Your task to perform on an android device: turn off location history Image 0: 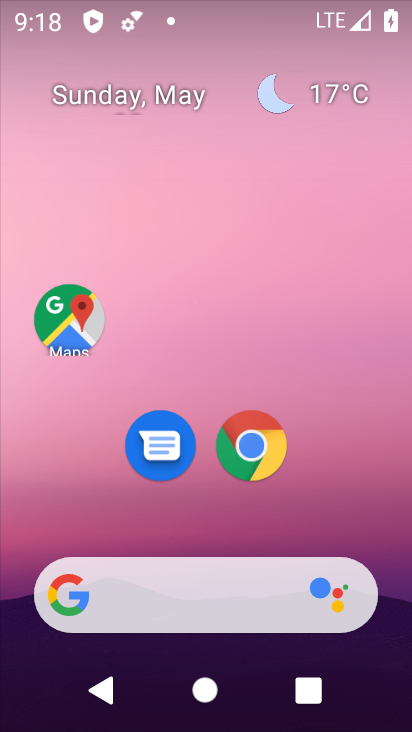
Step 0: drag from (187, 531) to (298, 0)
Your task to perform on an android device: turn off location history Image 1: 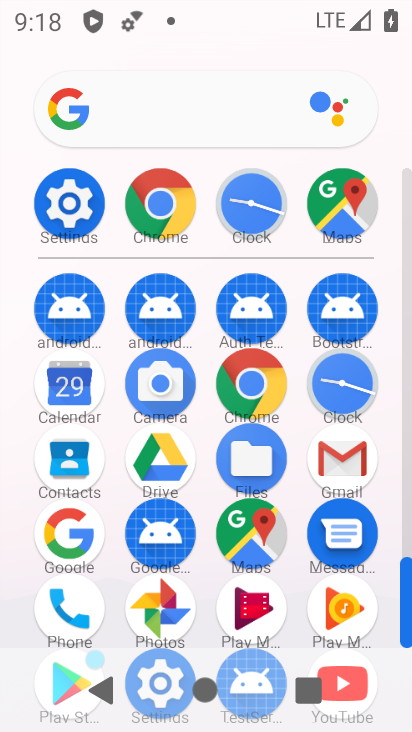
Step 1: click (71, 201)
Your task to perform on an android device: turn off location history Image 2: 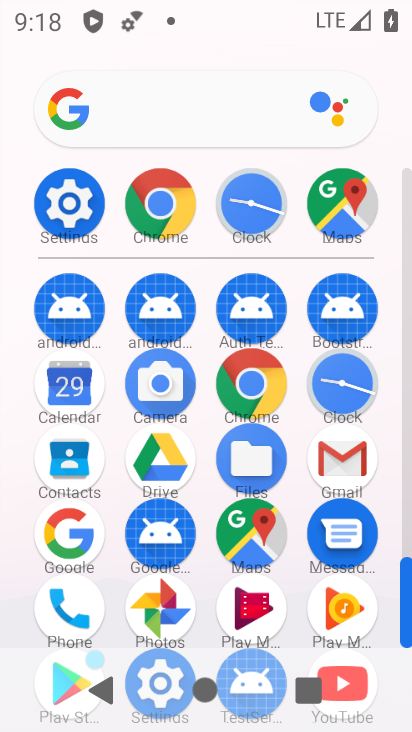
Step 2: click (71, 201)
Your task to perform on an android device: turn off location history Image 3: 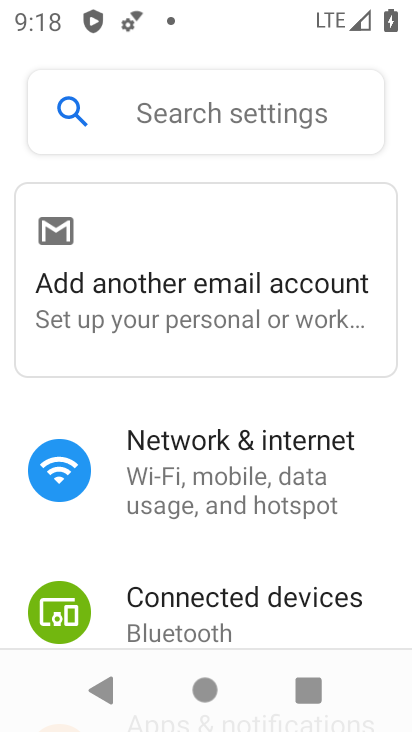
Step 3: drag from (245, 582) to (350, 22)
Your task to perform on an android device: turn off location history Image 4: 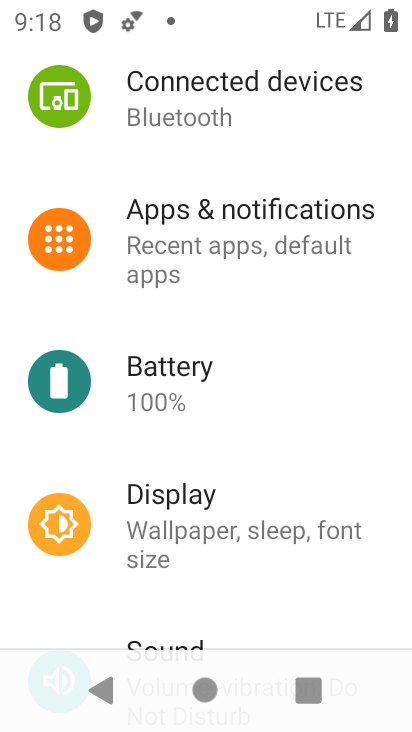
Step 4: drag from (244, 582) to (281, 111)
Your task to perform on an android device: turn off location history Image 5: 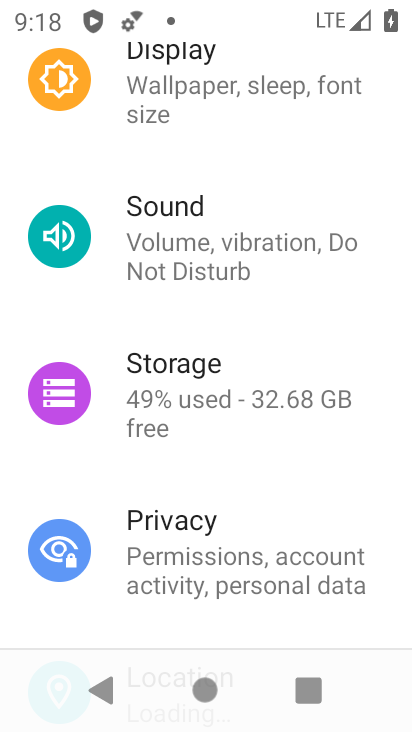
Step 5: drag from (203, 489) to (267, 84)
Your task to perform on an android device: turn off location history Image 6: 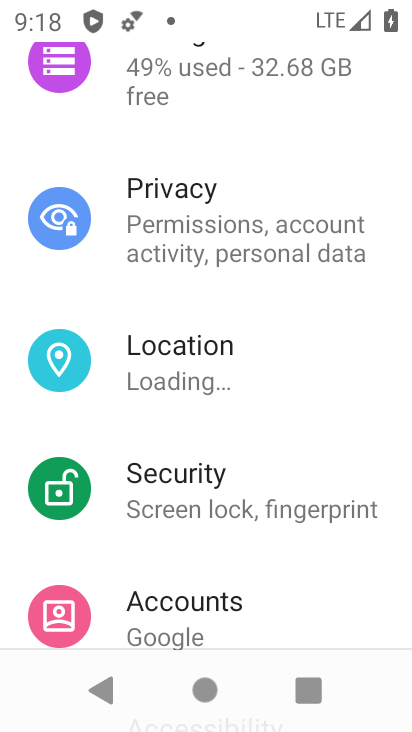
Step 6: click (227, 389)
Your task to perform on an android device: turn off location history Image 7: 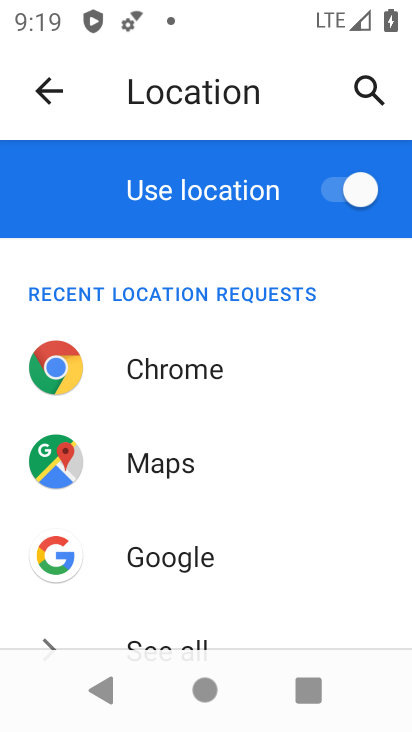
Step 7: drag from (240, 544) to (281, 78)
Your task to perform on an android device: turn off location history Image 8: 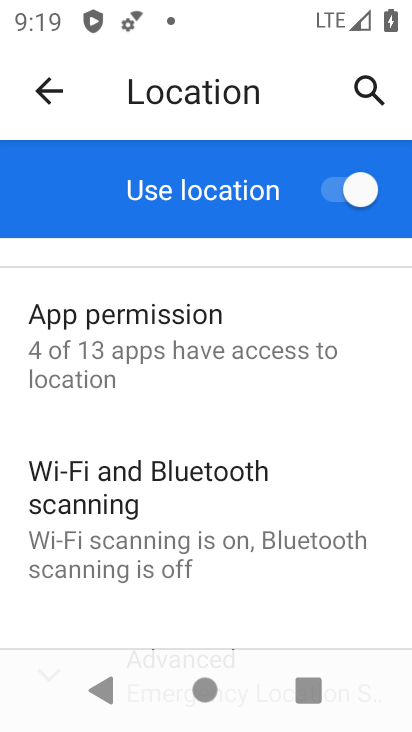
Step 8: drag from (196, 554) to (276, 195)
Your task to perform on an android device: turn off location history Image 9: 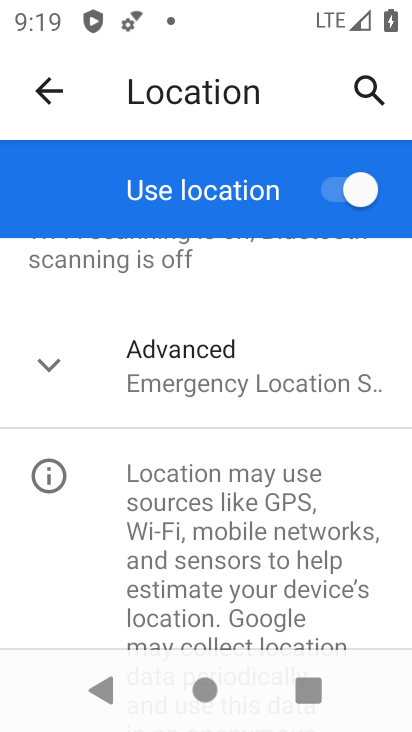
Step 9: click (186, 381)
Your task to perform on an android device: turn off location history Image 10: 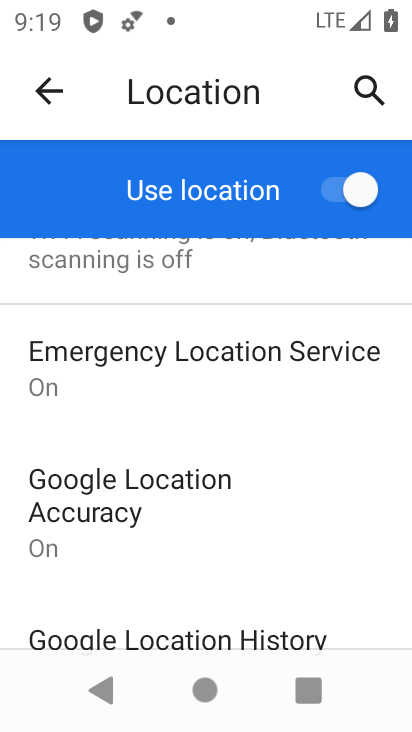
Step 10: drag from (235, 511) to (268, 226)
Your task to perform on an android device: turn off location history Image 11: 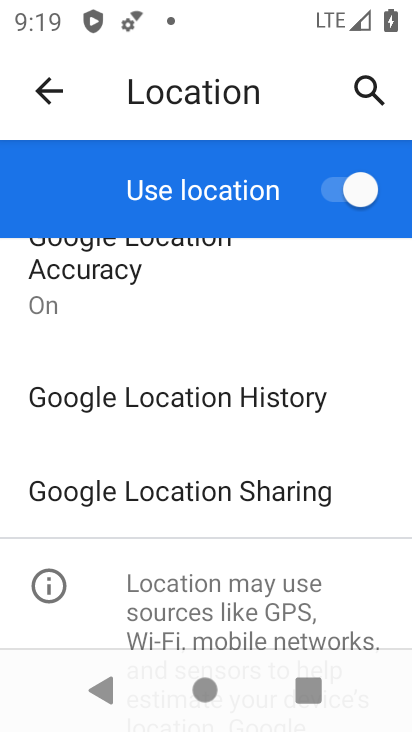
Step 11: click (211, 411)
Your task to perform on an android device: turn off location history Image 12: 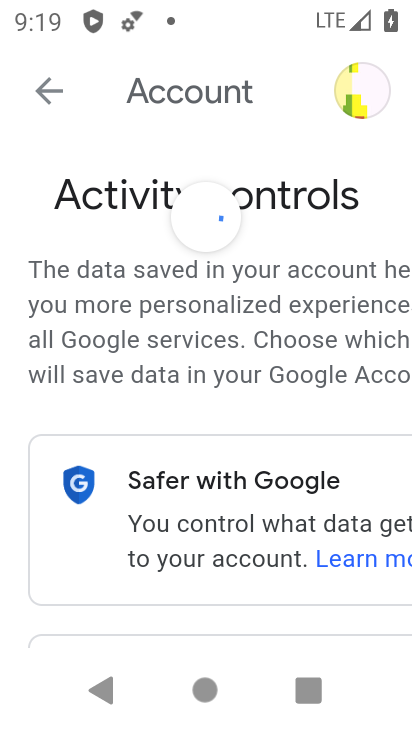
Step 12: task complete